Your task to perform on an android device: Go to Yahoo.com Image 0: 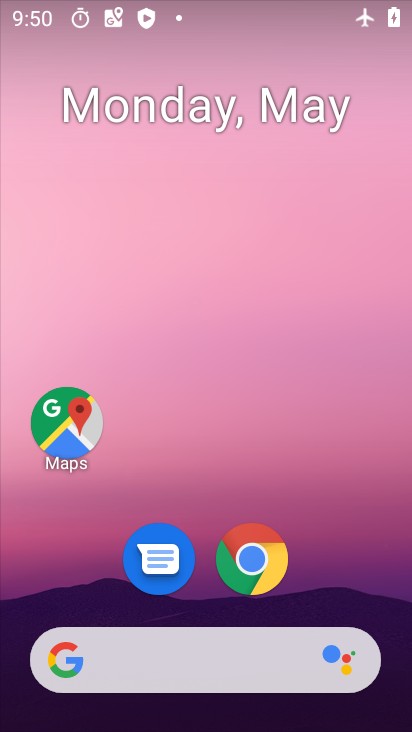
Step 0: click (258, 557)
Your task to perform on an android device: Go to Yahoo.com Image 1: 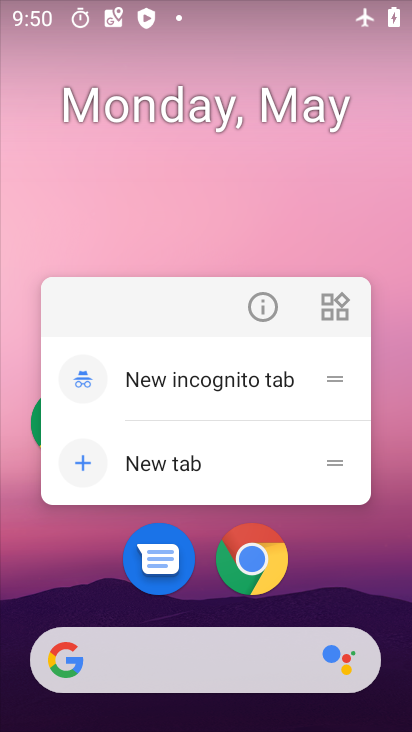
Step 1: click (258, 557)
Your task to perform on an android device: Go to Yahoo.com Image 2: 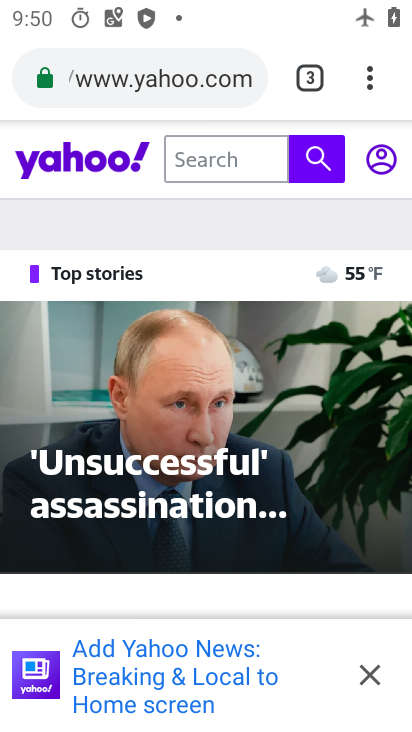
Step 2: task complete